Your task to perform on an android device: Open Youtube and go to the subscriptions tab Image 0: 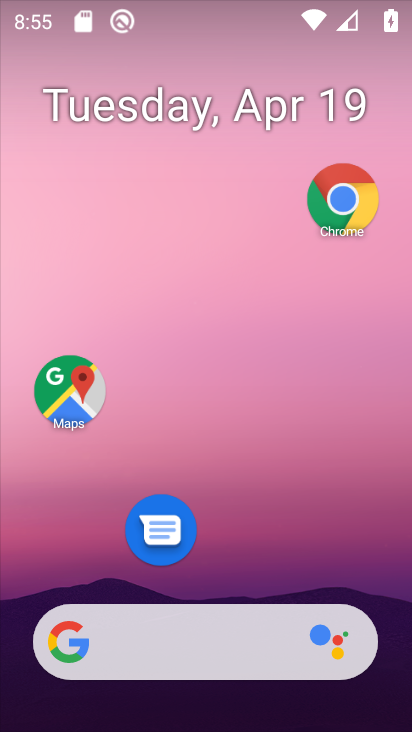
Step 0: drag from (213, 557) to (248, 139)
Your task to perform on an android device: Open Youtube and go to the subscriptions tab Image 1: 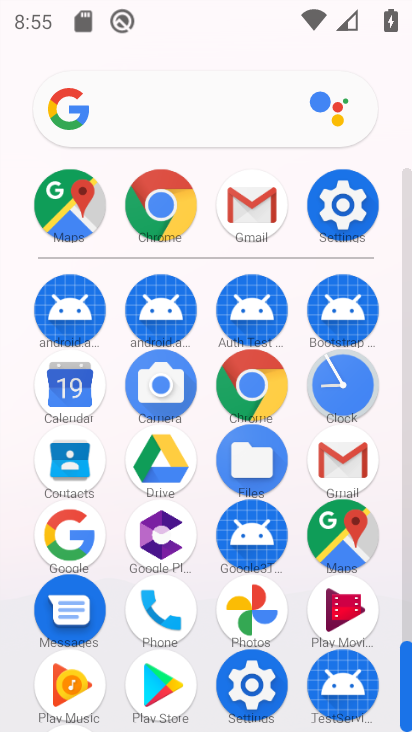
Step 1: drag from (196, 658) to (243, 117)
Your task to perform on an android device: Open Youtube and go to the subscriptions tab Image 2: 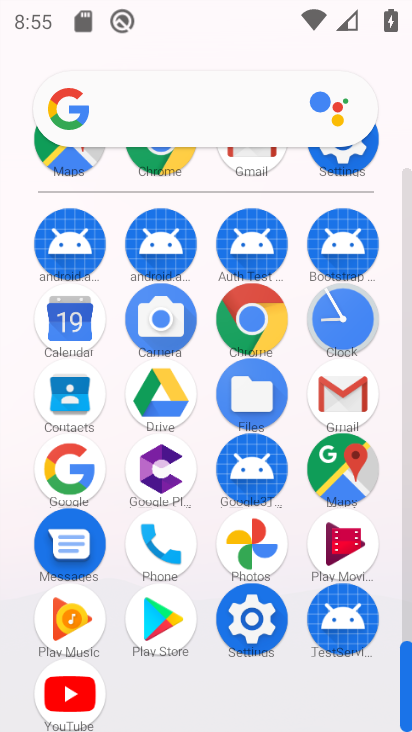
Step 2: click (67, 688)
Your task to perform on an android device: Open Youtube and go to the subscriptions tab Image 3: 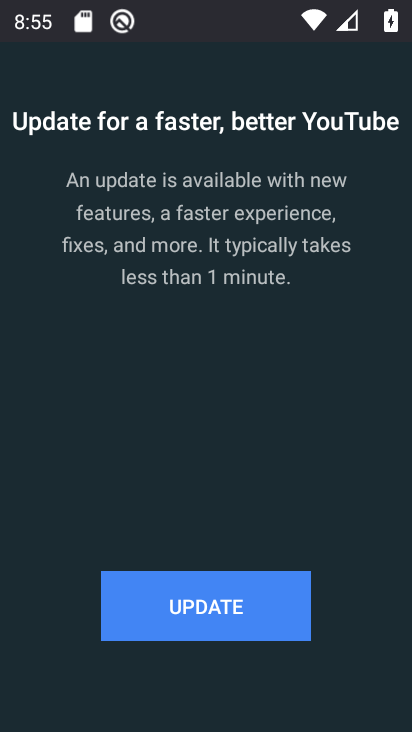
Step 3: task complete